Your task to perform on an android device: Open the stopwatch Image 0: 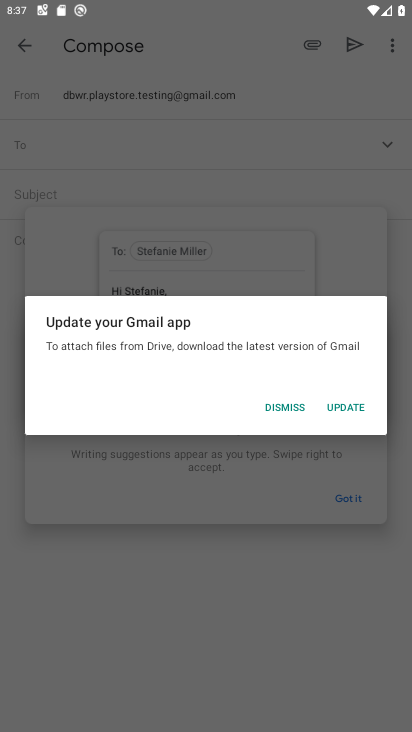
Step 0: press home button
Your task to perform on an android device: Open the stopwatch Image 1: 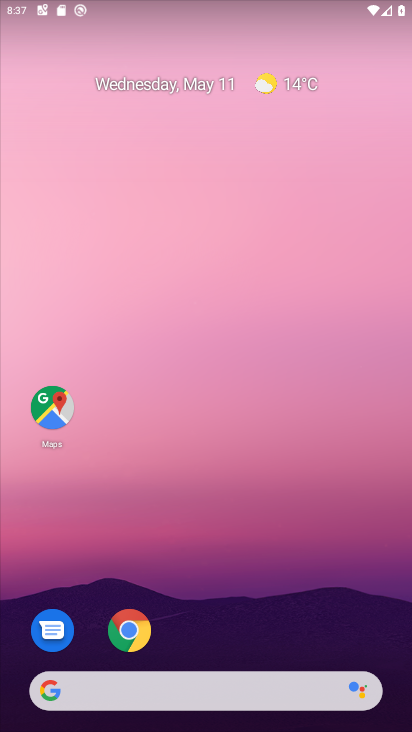
Step 1: drag from (22, 649) to (402, 127)
Your task to perform on an android device: Open the stopwatch Image 2: 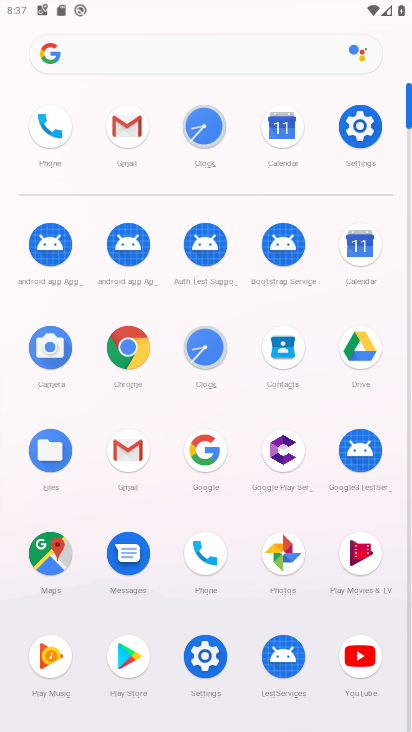
Step 2: click (204, 342)
Your task to perform on an android device: Open the stopwatch Image 3: 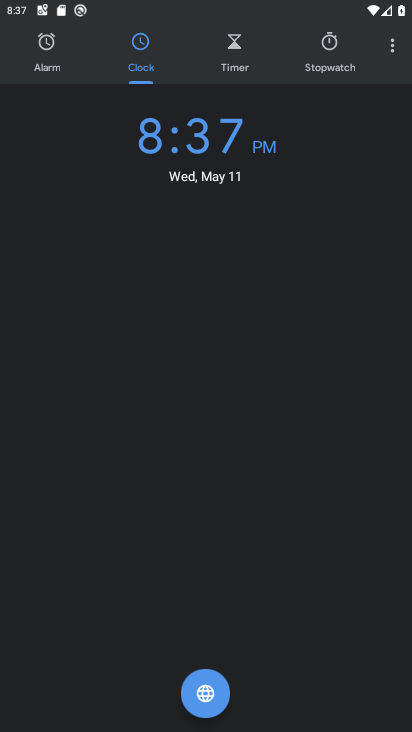
Step 3: click (315, 45)
Your task to perform on an android device: Open the stopwatch Image 4: 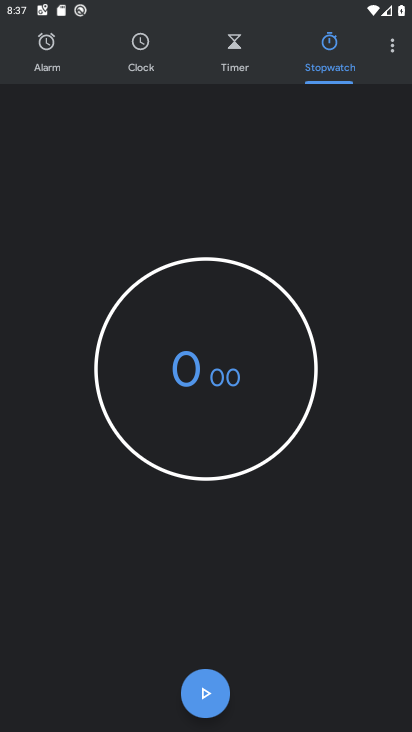
Step 4: click (203, 713)
Your task to perform on an android device: Open the stopwatch Image 5: 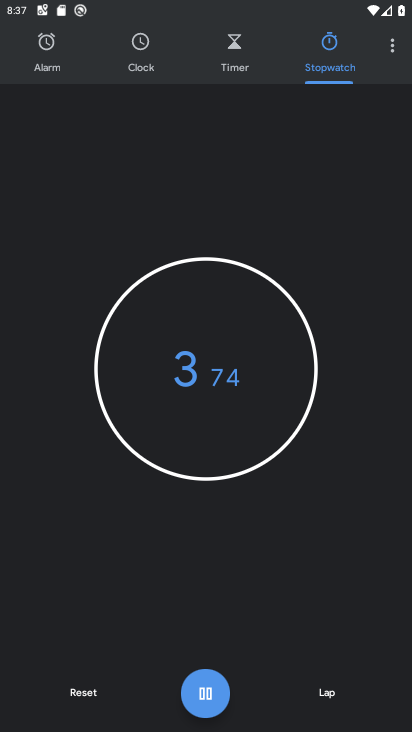
Step 5: task complete